Your task to perform on an android device: turn off sleep mode Image 0: 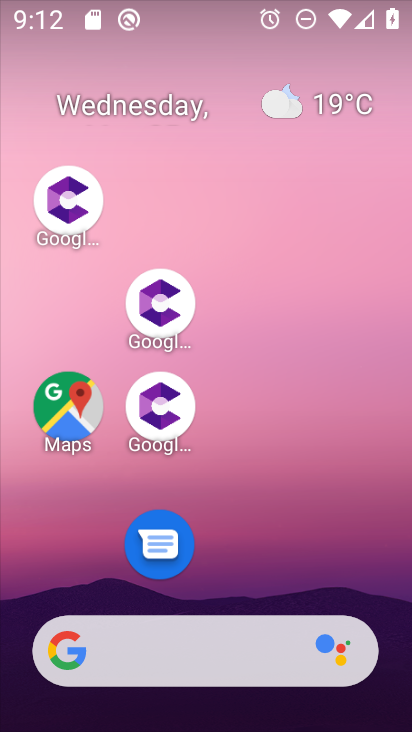
Step 0: drag from (325, 492) to (195, 34)
Your task to perform on an android device: turn off sleep mode Image 1: 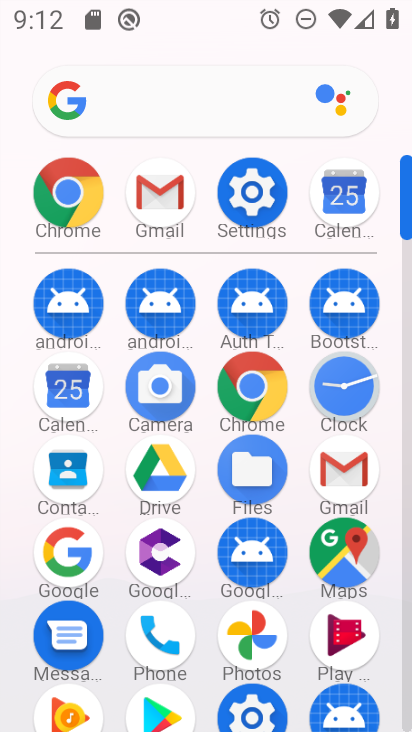
Step 1: click (247, 190)
Your task to perform on an android device: turn off sleep mode Image 2: 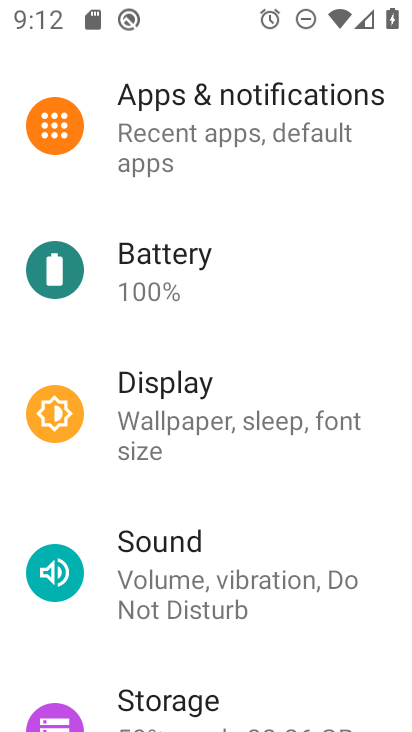
Step 2: click (167, 379)
Your task to perform on an android device: turn off sleep mode Image 3: 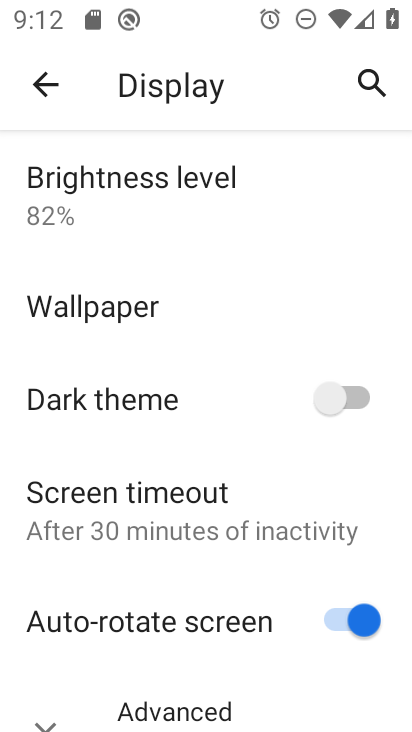
Step 3: task complete